Your task to perform on an android device: delete the emails in spam in the gmail app Image 0: 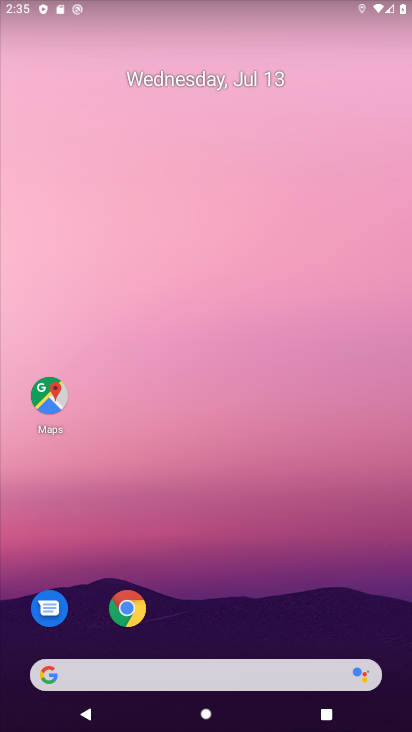
Step 0: drag from (220, 609) to (186, 95)
Your task to perform on an android device: delete the emails in spam in the gmail app Image 1: 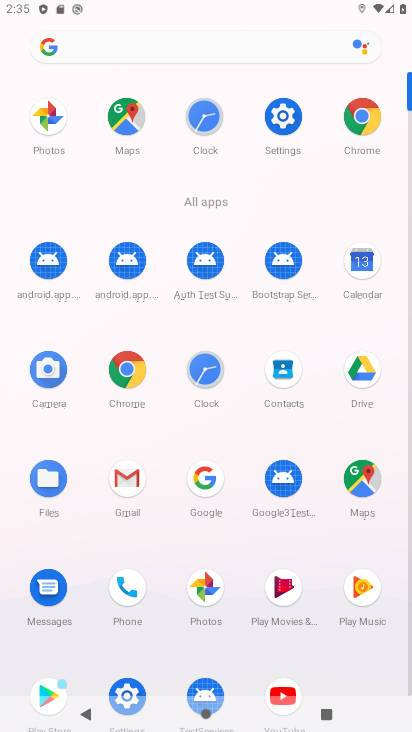
Step 1: click (127, 473)
Your task to perform on an android device: delete the emails in spam in the gmail app Image 2: 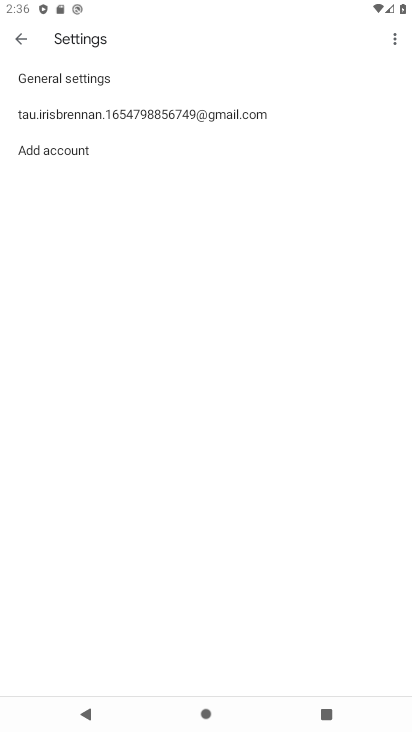
Step 2: press back button
Your task to perform on an android device: delete the emails in spam in the gmail app Image 3: 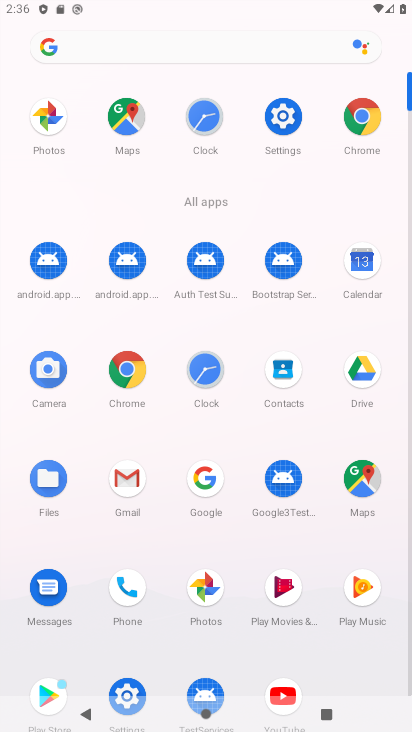
Step 3: click (138, 474)
Your task to perform on an android device: delete the emails in spam in the gmail app Image 4: 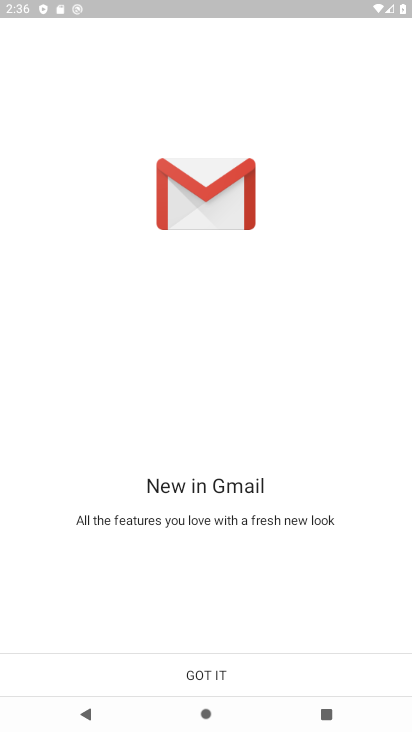
Step 4: click (201, 676)
Your task to perform on an android device: delete the emails in spam in the gmail app Image 5: 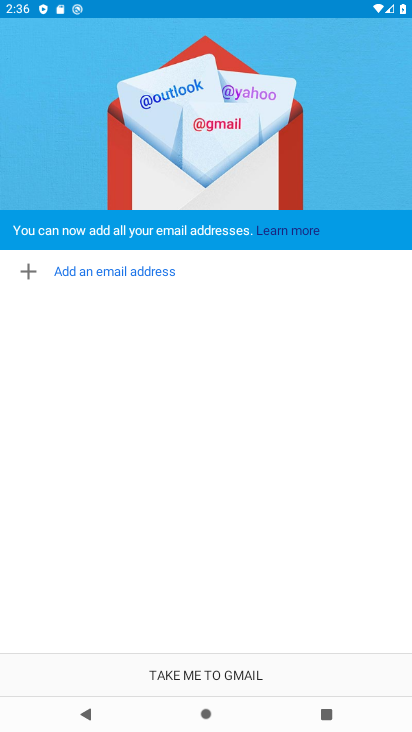
Step 5: click (201, 676)
Your task to perform on an android device: delete the emails in spam in the gmail app Image 6: 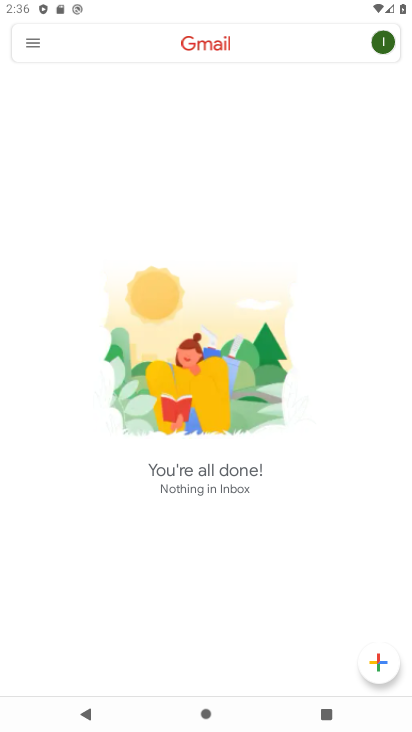
Step 6: click (35, 35)
Your task to perform on an android device: delete the emails in spam in the gmail app Image 7: 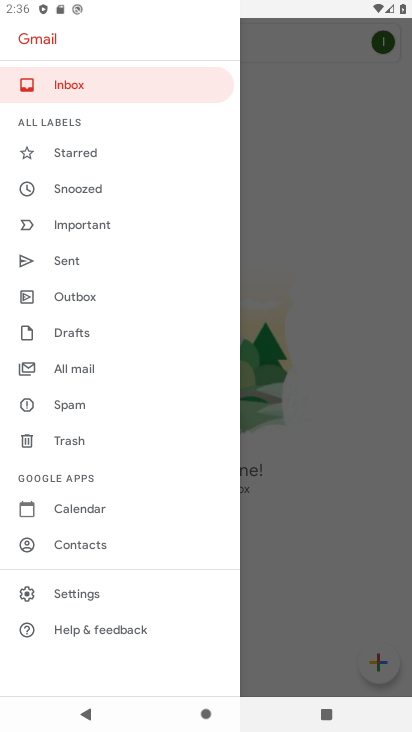
Step 7: click (59, 402)
Your task to perform on an android device: delete the emails in spam in the gmail app Image 8: 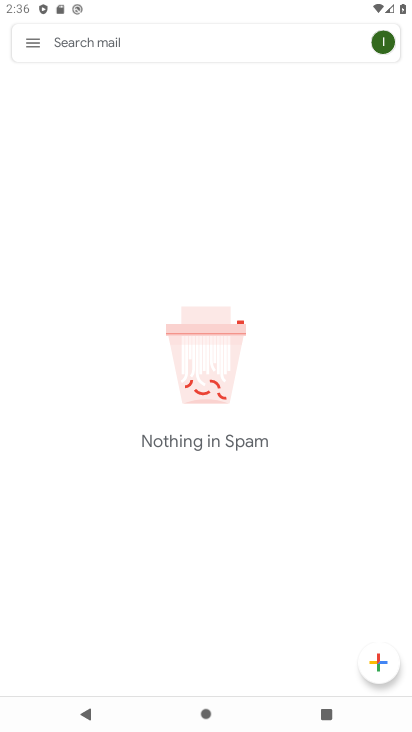
Step 8: task complete